Your task to perform on an android device: turn off javascript in the chrome app Image 0: 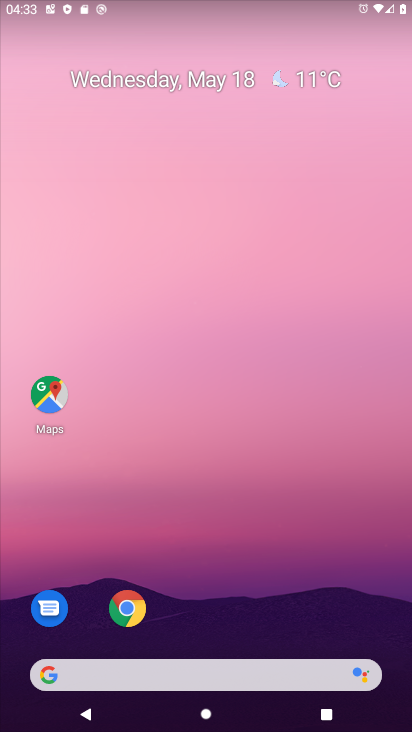
Step 0: click (135, 605)
Your task to perform on an android device: turn off javascript in the chrome app Image 1: 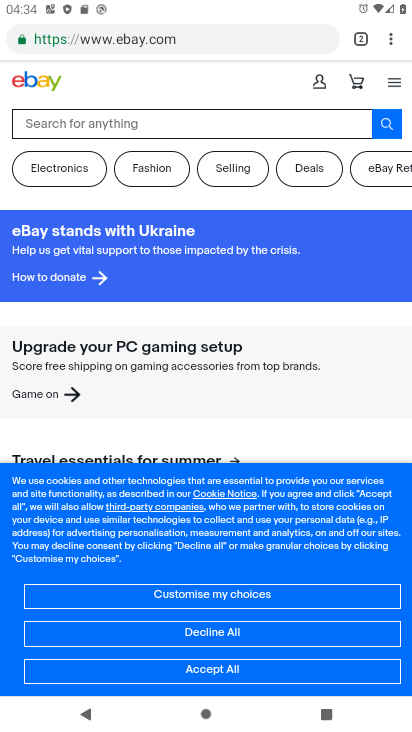
Step 1: click (396, 41)
Your task to perform on an android device: turn off javascript in the chrome app Image 2: 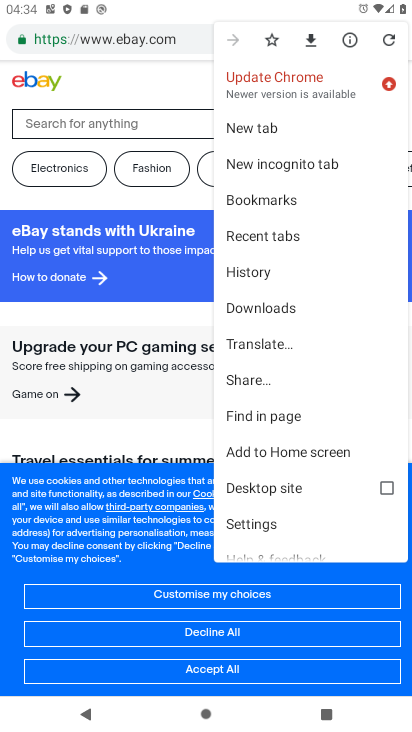
Step 2: click (238, 512)
Your task to perform on an android device: turn off javascript in the chrome app Image 3: 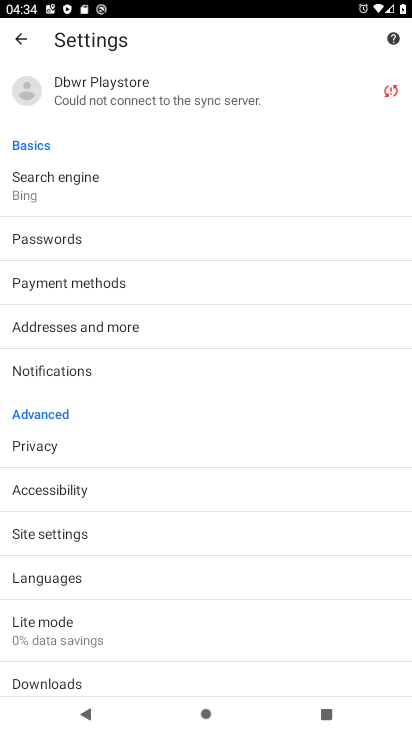
Step 3: drag from (91, 637) to (149, 403)
Your task to perform on an android device: turn off javascript in the chrome app Image 4: 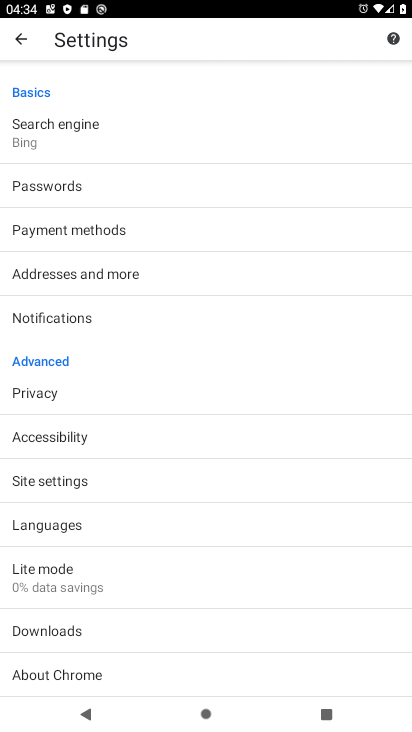
Step 4: drag from (146, 240) to (117, 557)
Your task to perform on an android device: turn off javascript in the chrome app Image 5: 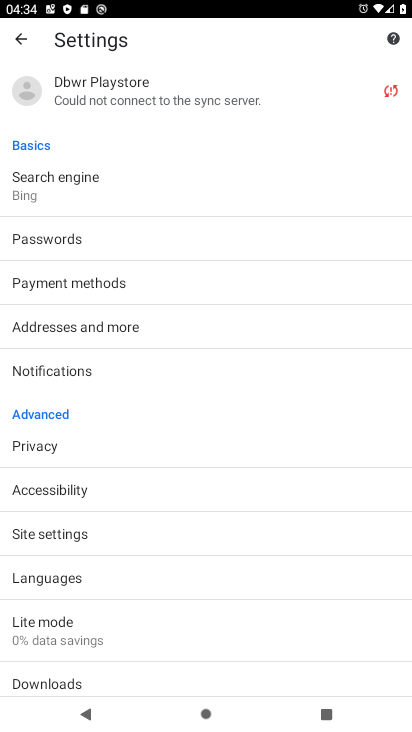
Step 5: click (101, 542)
Your task to perform on an android device: turn off javascript in the chrome app Image 6: 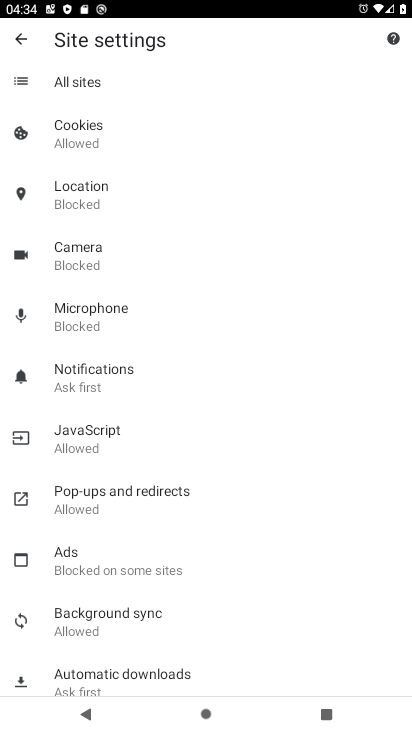
Step 6: click (169, 443)
Your task to perform on an android device: turn off javascript in the chrome app Image 7: 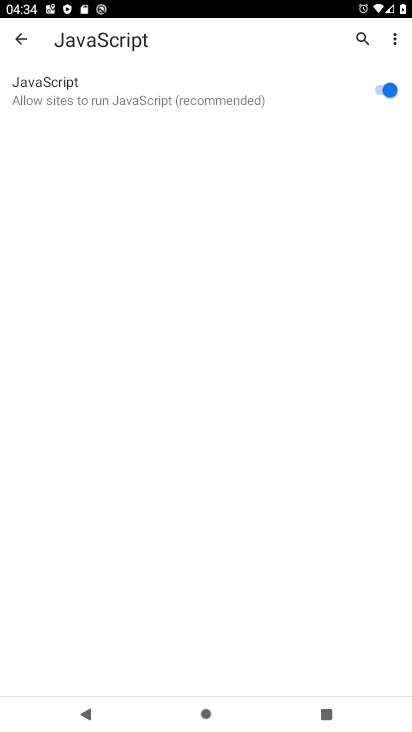
Step 7: click (380, 88)
Your task to perform on an android device: turn off javascript in the chrome app Image 8: 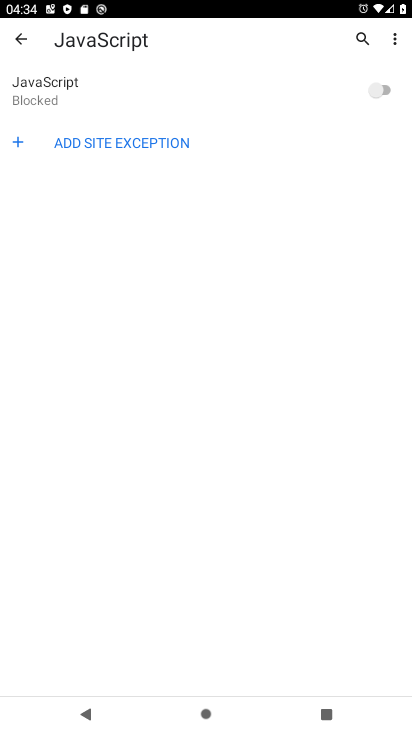
Step 8: task complete